Your task to perform on an android device: Search for Mexican restaurants on Maps Image 0: 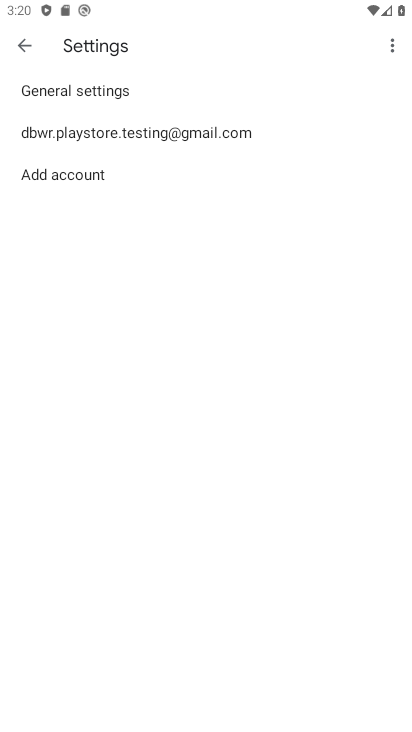
Step 0: press back button
Your task to perform on an android device: Search for Mexican restaurants on Maps Image 1: 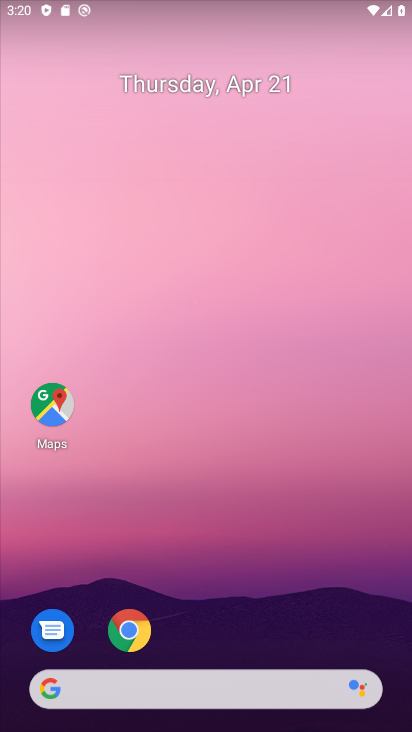
Step 1: click (50, 387)
Your task to perform on an android device: Search for Mexican restaurants on Maps Image 2: 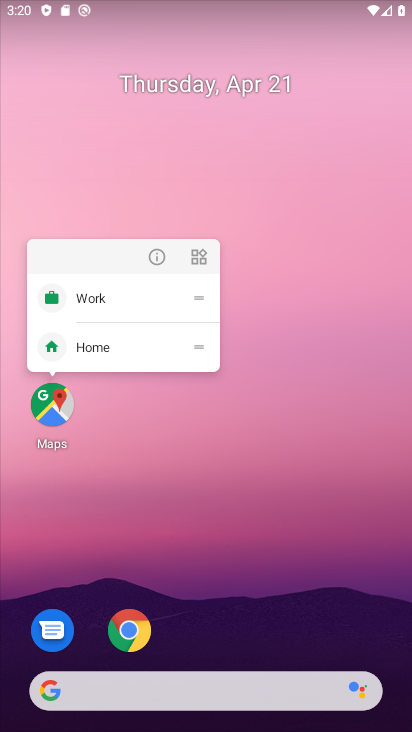
Step 2: click (55, 401)
Your task to perform on an android device: Search for Mexican restaurants on Maps Image 3: 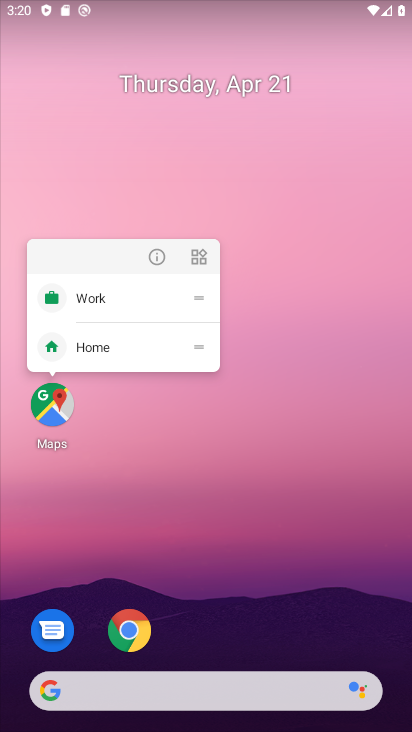
Step 3: click (55, 404)
Your task to perform on an android device: Search for Mexican restaurants on Maps Image 4: 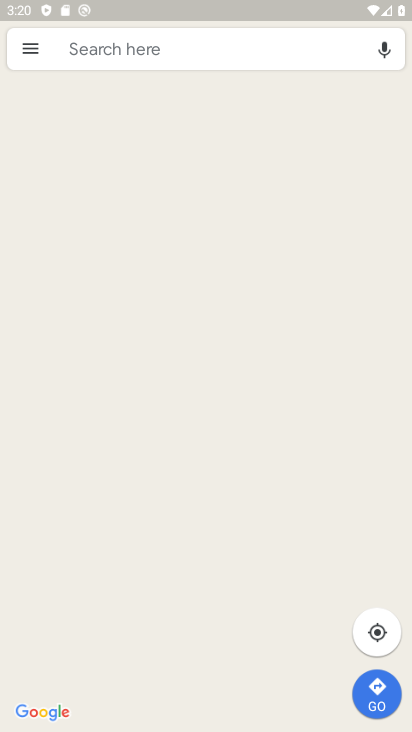
Step 4: click (116, 49)
Your task to perform on an android device: Search for Mexican restaurants on Maps Image 5: 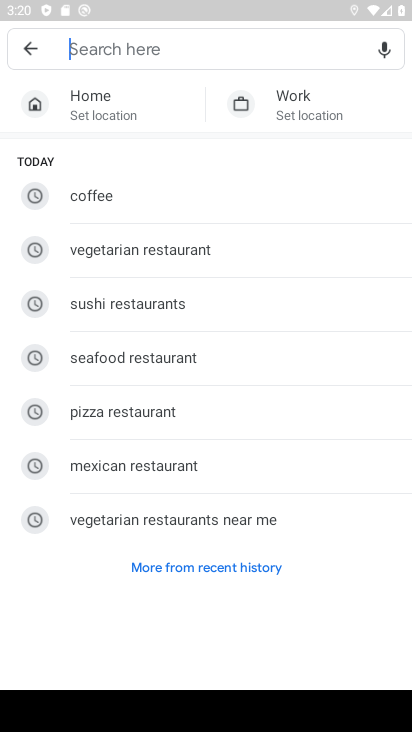
Step 5: type "mexican "
Your task to perform on an android device: Search for Mexican restaurants on Maps Image 6: 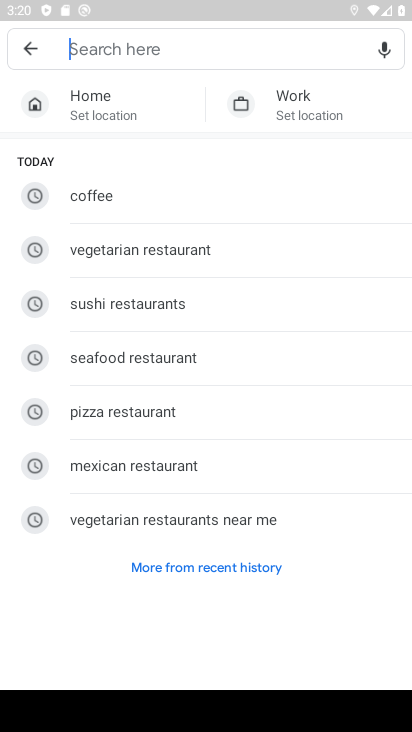
Step 6: click (259, 467)
Your task to perform on an android device: Search for Mexican restaurants on Maps Image 7: 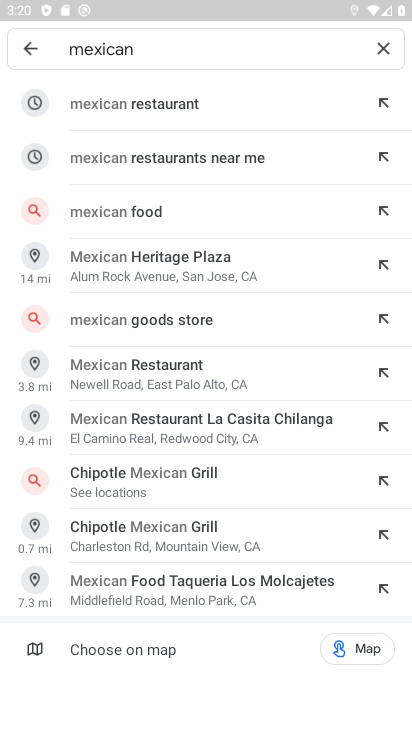
Step 7: click (131, 101)
Your task to perform on an android device: Search for Mexican restaurants on Maps Image 8: 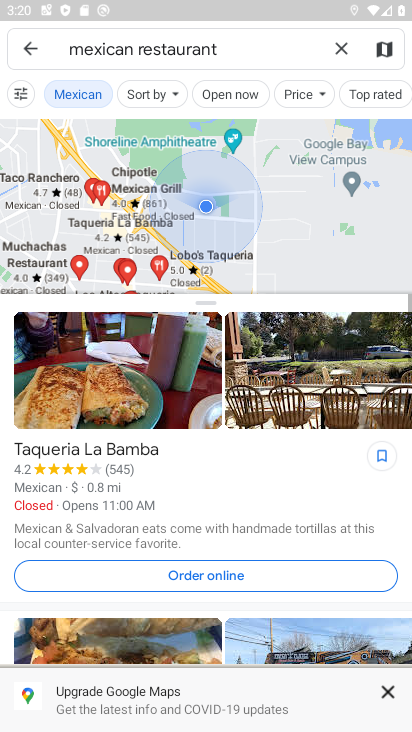
Step 8: task complete